Your task to perform on an android device: Go to internet settings Image 0: 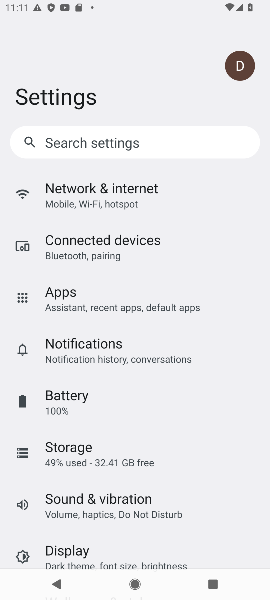
Step 0: click (99, 191)
Your task to perform on an android device: Go to internet settings Image 1: 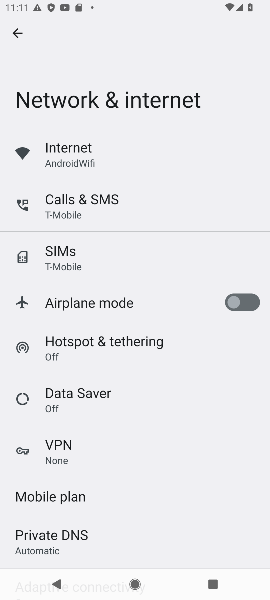
Step 1: click (103, 151)
Your task to perform on an android device: Go to internet settings Image 2: 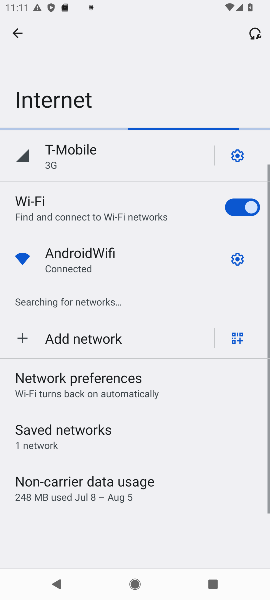
Step 2: task complete